Your task to perform on an android device: Open the stopwatch Image 0: 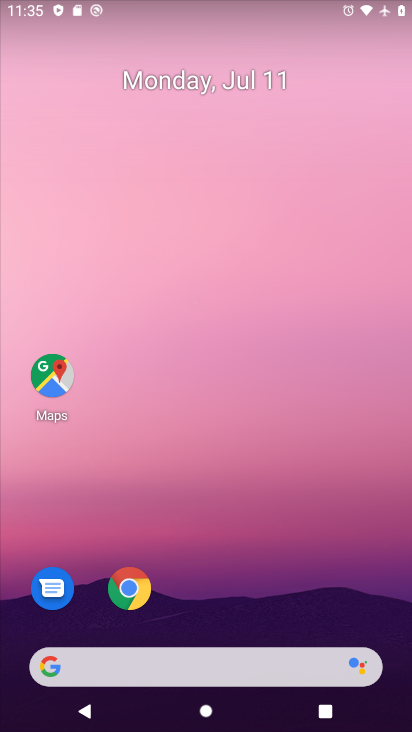
Step 0: drag from (197, 618) to (276, 87)
Your task to perform on an android device: Open the stopwatch Image 1: 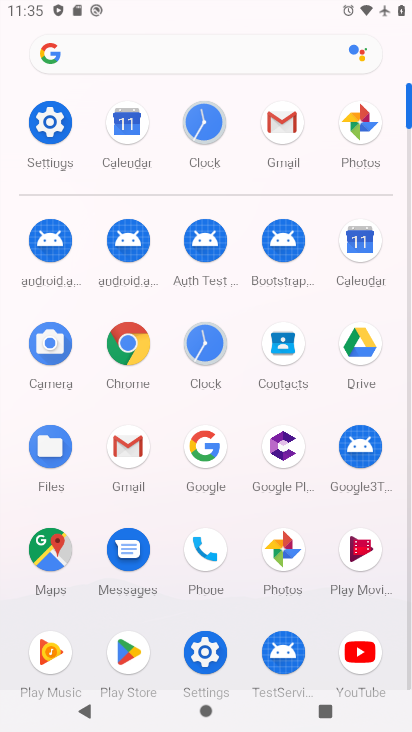
Step 1: click (202, 352)
Your task to perform on an android device: Open the stopwatch Image 2: 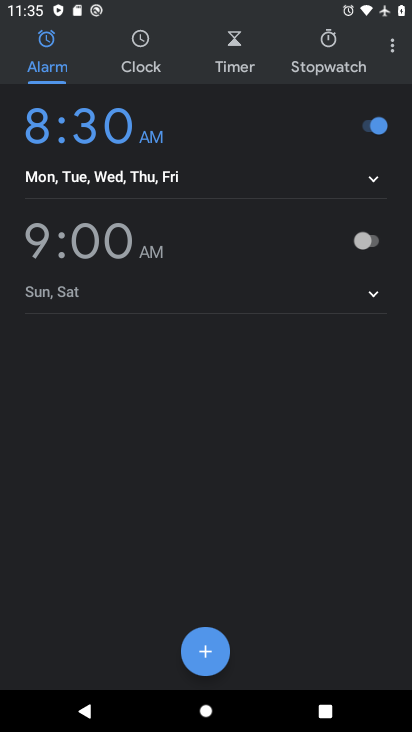
Step 2: click (319, 56)
Your task to perform on an android device: Open the stopwatch Image 3: 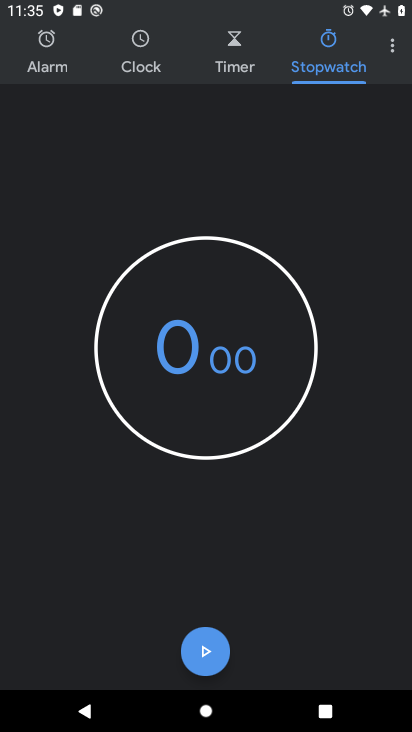
Step 3: click (204, 352)
Your task to perform on an android device: Open the stopwatch Image 4: 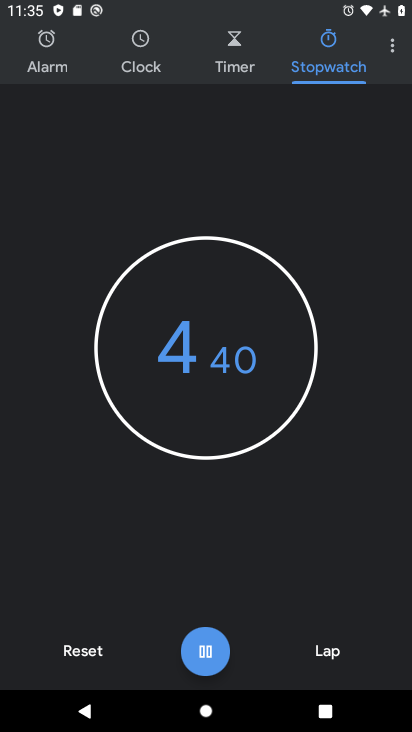
Step 4: click (224, 341)
Your task to perform on an android device: Open the stopwatch Image 5: 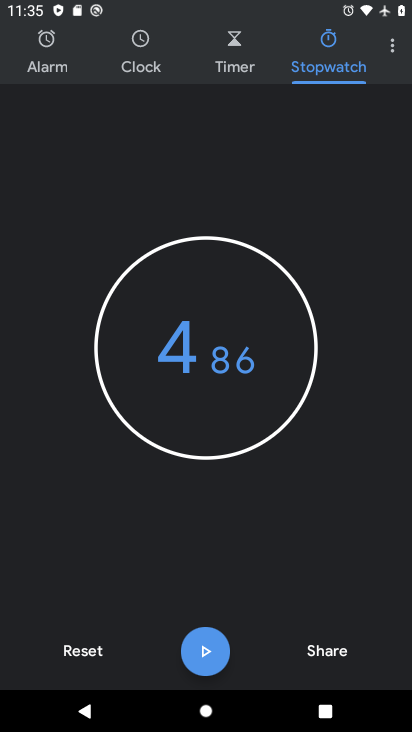
Step 5: task complete